Your task to perform on an android device: turn on translation in the chrome app Image 0: 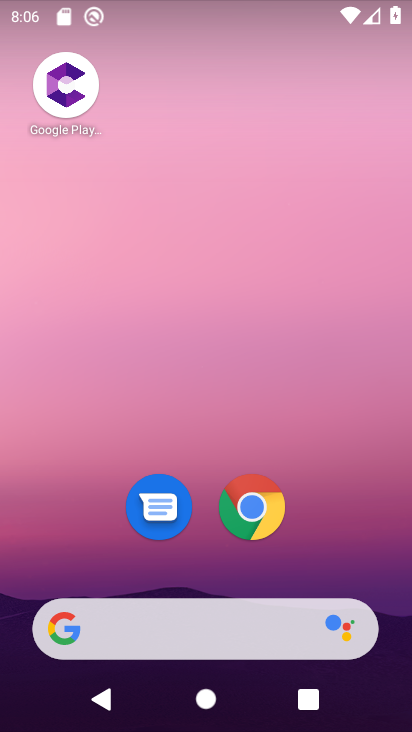
Step 0: drag from (229, 535) to (335, 262)
Your task to perform on an android device: turn on translation in the chrome app Image 1: 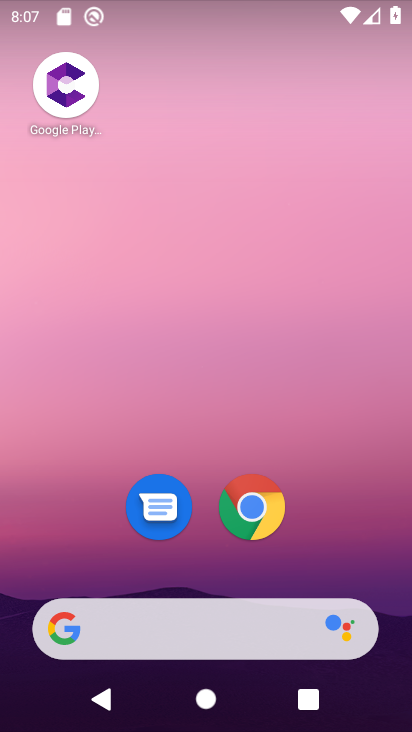
Step 1: drag from (200, 555) to (297, 39)
Your task to perform on an android device: turn on translation in the chrome app Image 2: 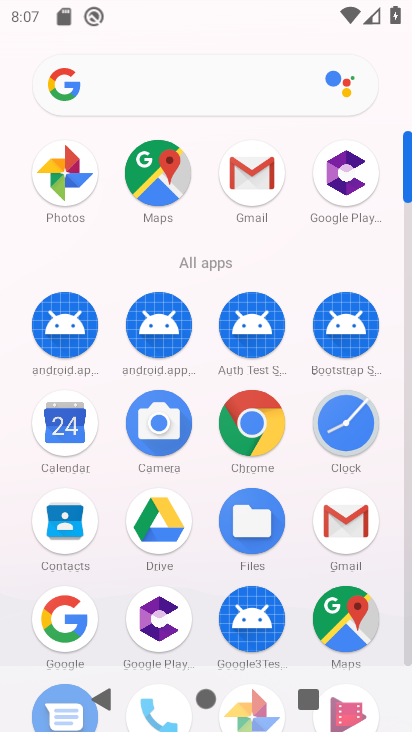
Step 2: click (262, 431)
Your task to perform on an android device: turn on translation in the chrome app Image 3: 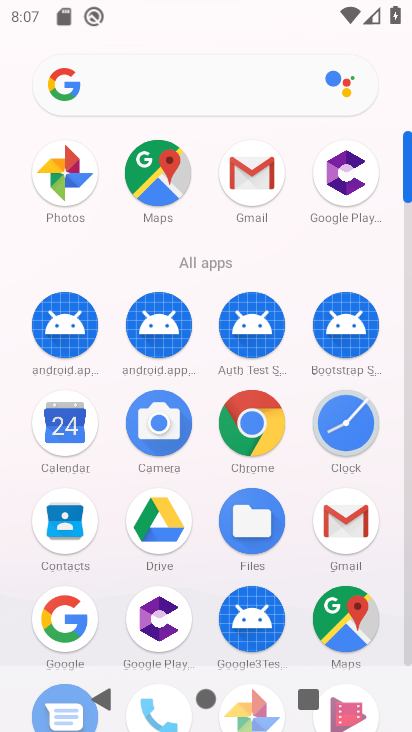
Step 3: click (262, 431)
Your task to perform on an android device: turn on translation in the chrome app Image 4: 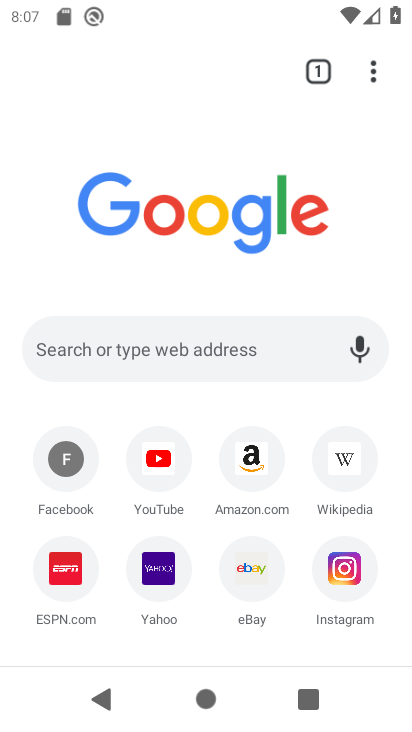
Step 4: drag from (213, 615) to (292, 306)
Your task to perform on an android device: turn on translation in the chrome app Image 5: 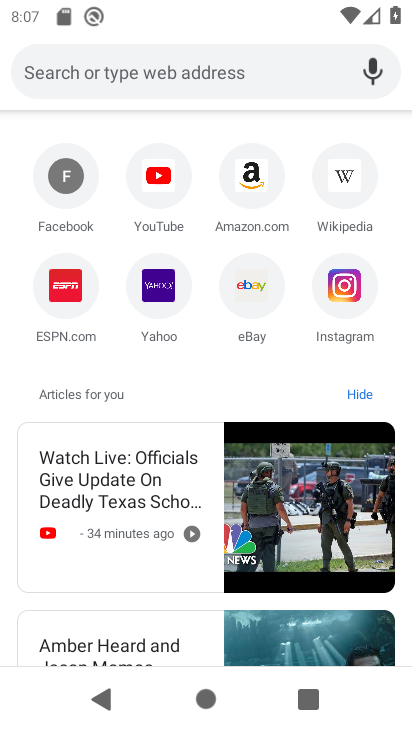
Step 5: drag from (310, 306) to (352, 672)
Your task to perform on an android device: turn on translation in the chrome app Image 6: 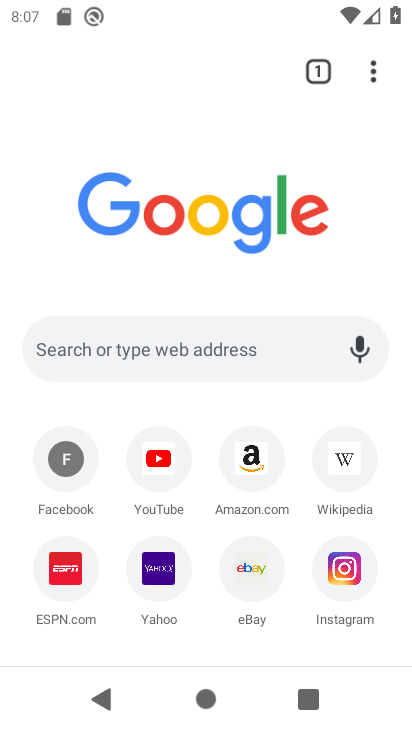
Step 6: click (367, 68)
Your task to perform on an android device: turn on translation in the chrome app Image 7: 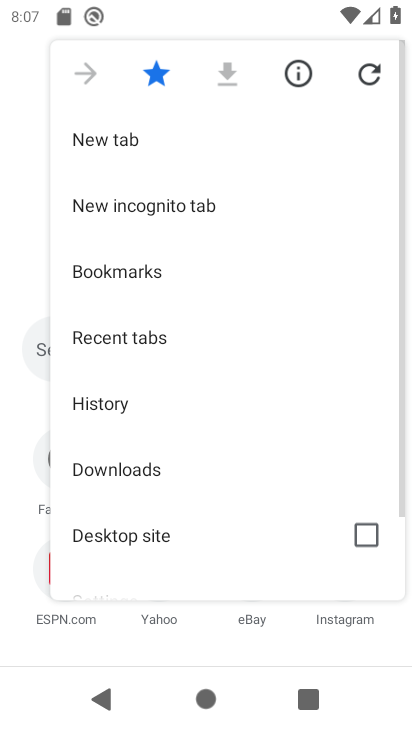
Step 7: drag from (184, 521) to (324, 88)
Your task to perform on an android device: turn on translation in the chrome app Image 8: 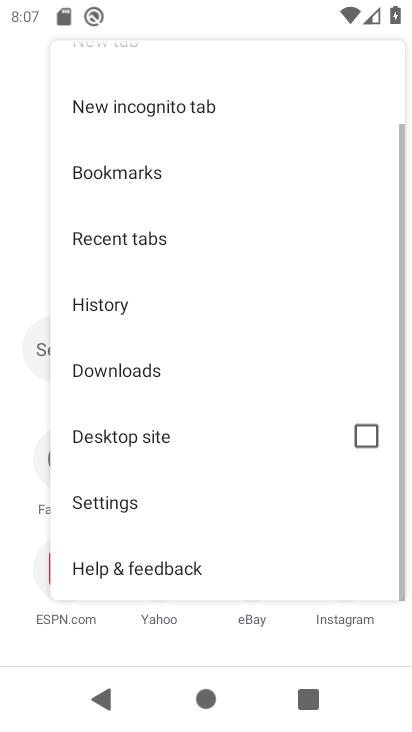
Step 8: click (133, 505)
Your task to perform on an android device: turn on translation in the chrome app Image 9: 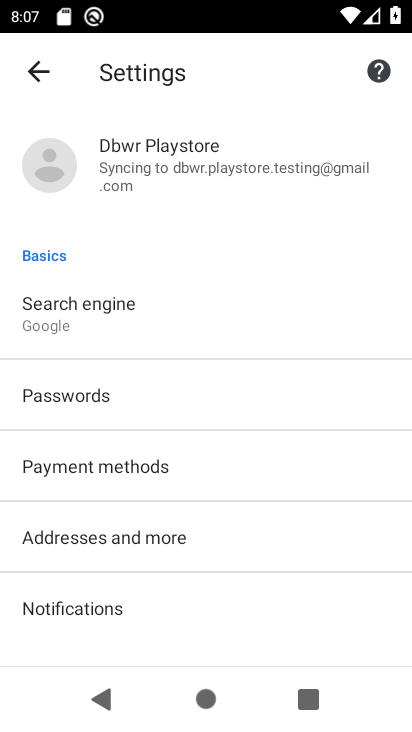
Step 9: drag from (221, 532) to (320, 102)
Your task to perform on an android device: turn on translation in the chrome app Image 10: 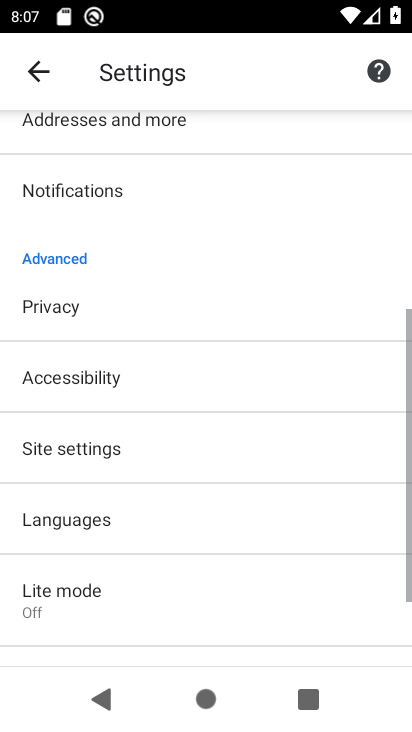
Step 10: drag from (146, 655) to (254, 298)
Your task to perform on an android device: turn on translation in the chrome app Image 11: 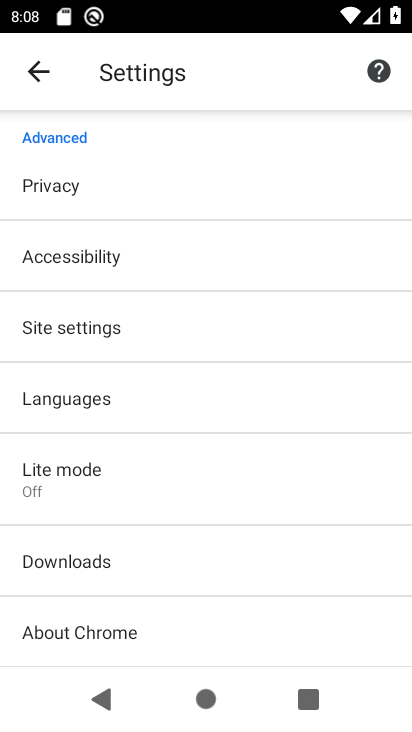
Step 11: click (138, 413)
Your task to perform on an android device: turn on translation in the chrome app Image 12: 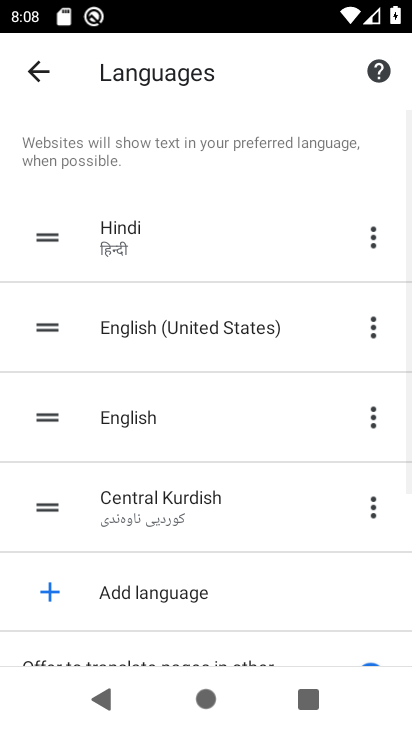
Step 12: task complete